Your task to perform on an android device: Is it going to rain tomorrow? Image 0: 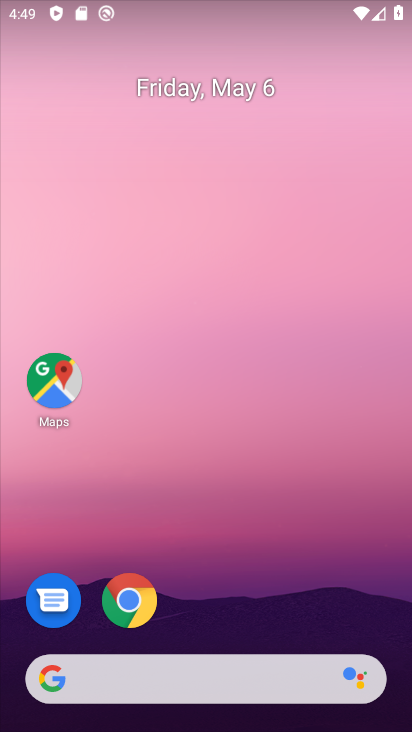
Step 0: click (171, 685)
Your task to perform on an android device: Is it going to rain tomorrow? Image 1: 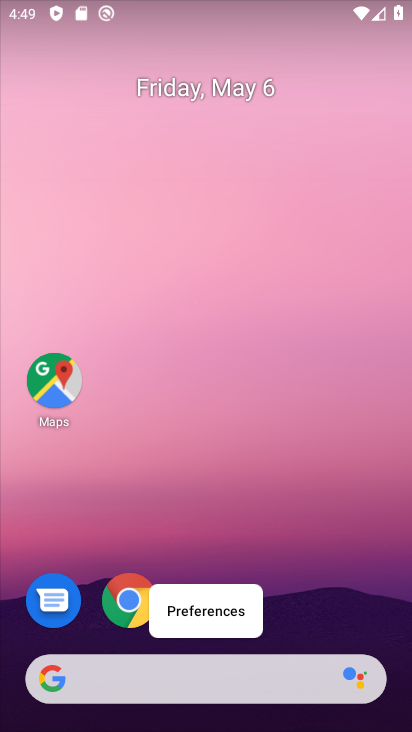
Step 1: click (170, 680)
Your task to perform on an android device: Is it going to rain tomorrow? Image 2: 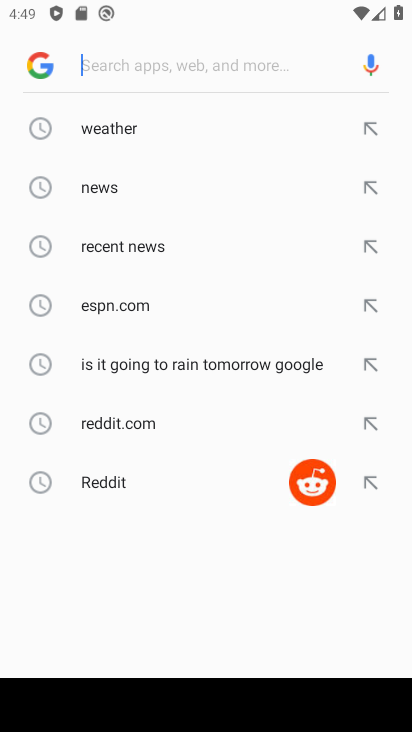
Step 2: click (101, 126)
Your task to perform on an android device: Is it going to rain tomorrow? Image 3: 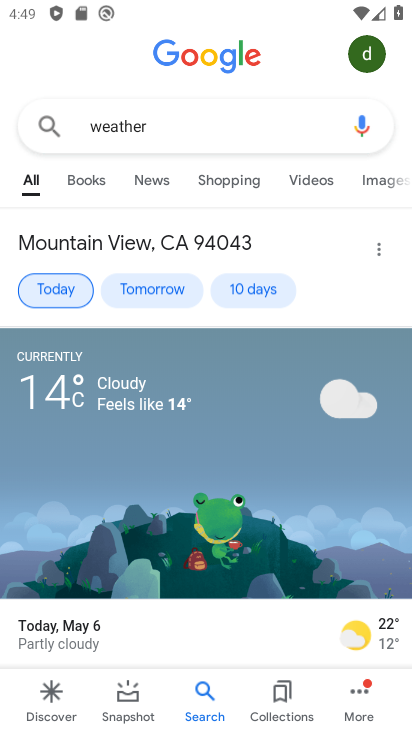
Step 3: task complete